Your task to perform on an android device: turn off notifications in google photos Image 0: 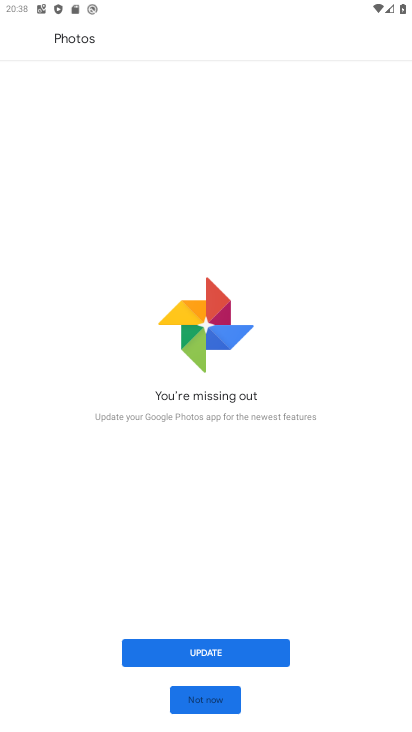
Step 0: click (200, 694)
Your task to perform on an android device: turn off notifications in google photos Image 1: 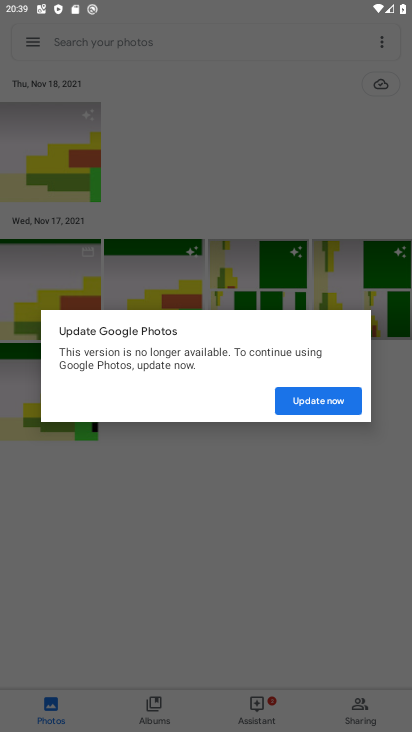
Step 1: press home button
Your task to perform on an android device: turn off notifications in google photos Image 2: 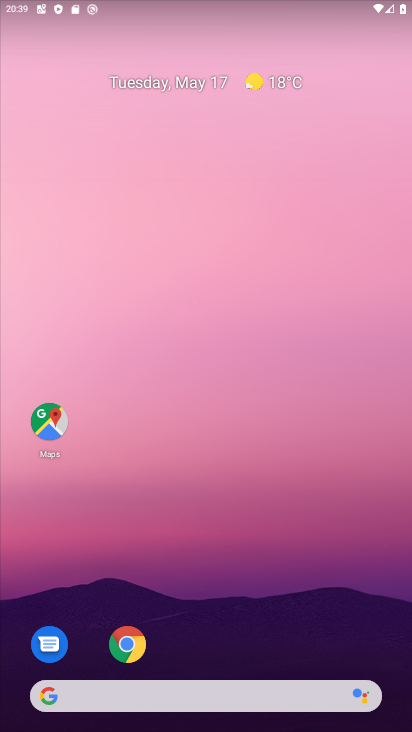
Step 2: drag from (201, 566) to (295, 82)
Your task to perform on an android device: turn off notifications in google photos Image 3: 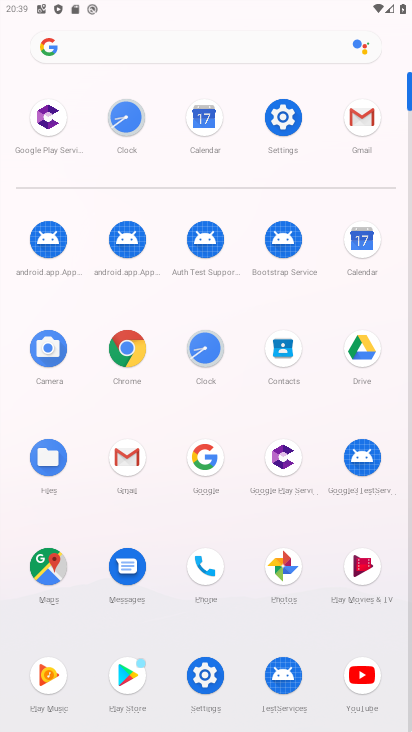
Step 3: click (284, 563)
Your task to perform on an android device: turn off notifications in google photos Image 4: 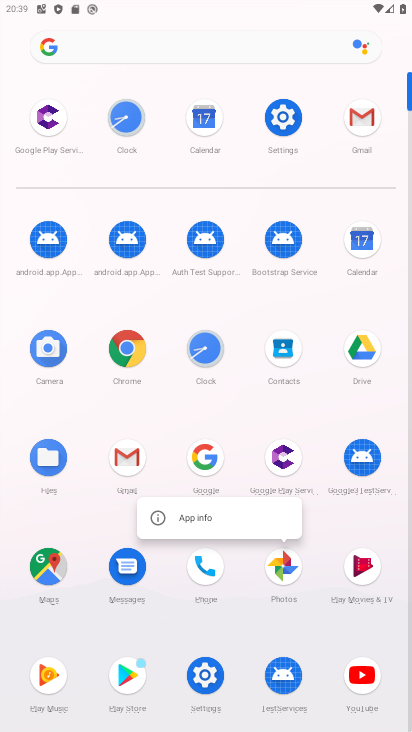
Step 4: click (197, 518)
Your task to perform on an android device: turn off notifications in google photos Image 5: 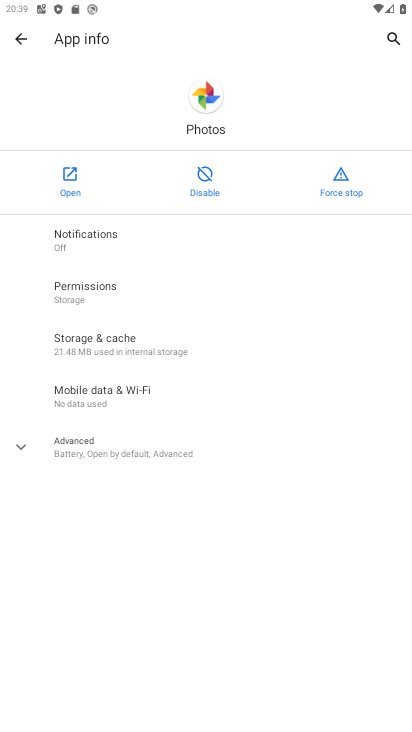
Step 5: click (92, 242)
Your task to perform on an android device: turn off notifications in google photos Image 6: 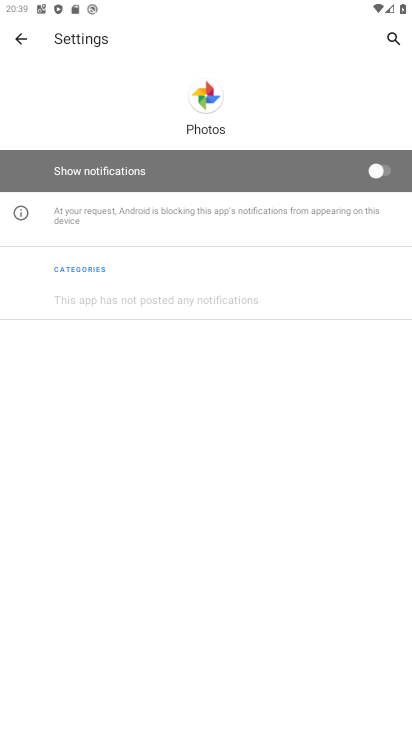
Step 6: task complete